Your task to perform on an android device: Open calendar and show me the third week of next month Image 0: 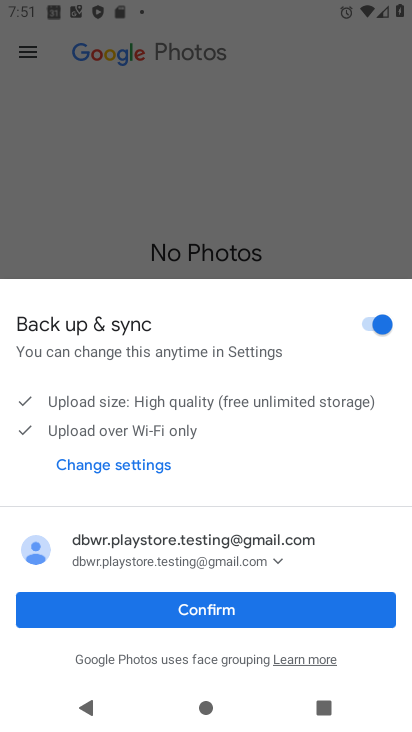
Step 0: press home button
Your task to perform on an android device: Open calendar and show me the third week of next month Image 1: 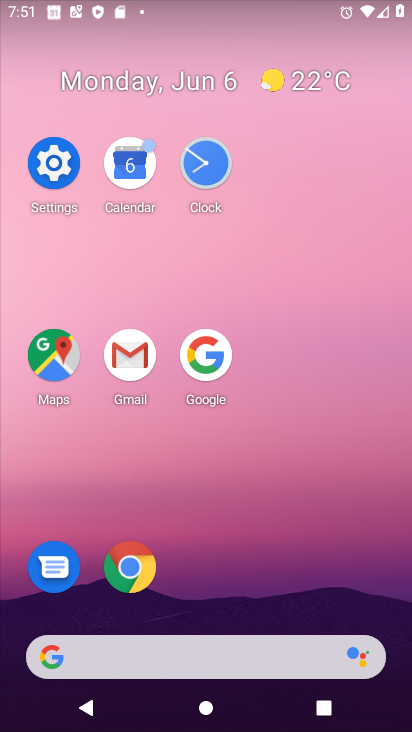
Step 1: click (120, 166)
Your task to perform on an android device: Open calendar and show me the third week of next month Image 2: 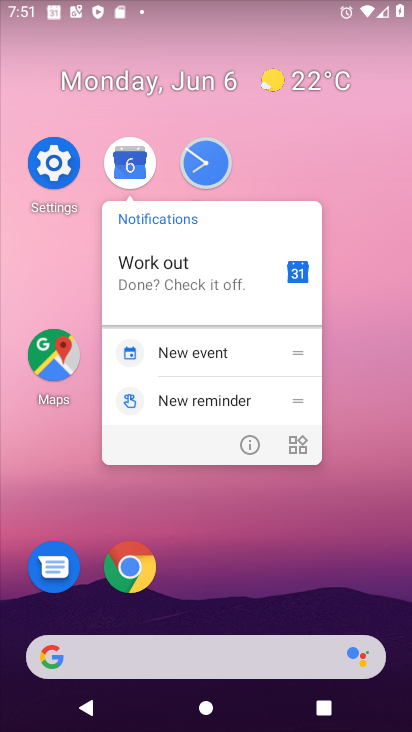
Step 2: click (120, 166)
Your task to perform on an android device: Open calendar and show me the third week of next month Image 3: 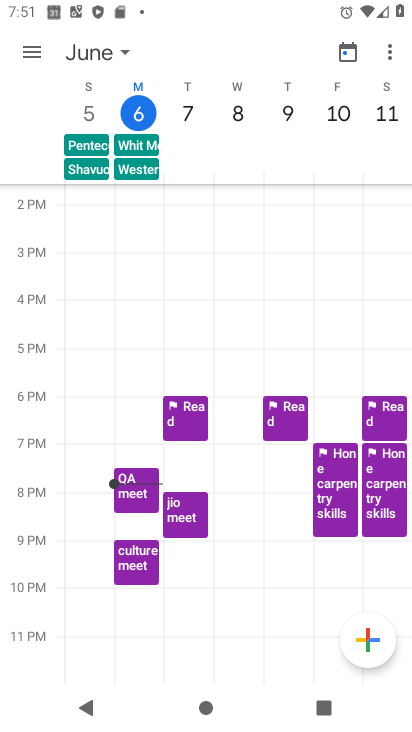
Step 3: click (109, 34)
Your task to perform on an android device: Open calendar and show me the third week of next month Image 4: 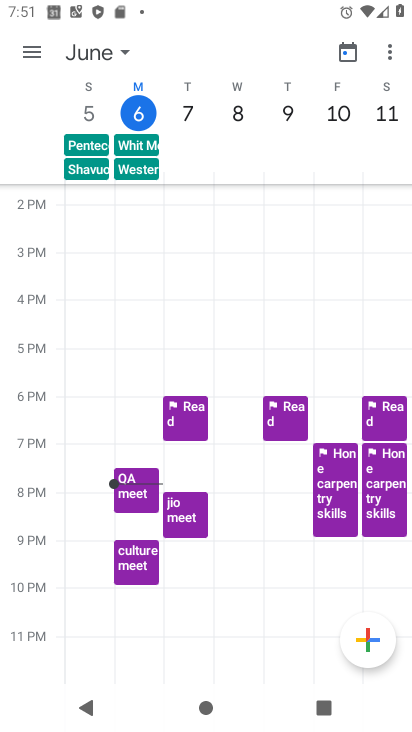
Step 4: click (112, 46)
Your task to perform on an android device: Open calendar and show me the third week of next month Image 5: 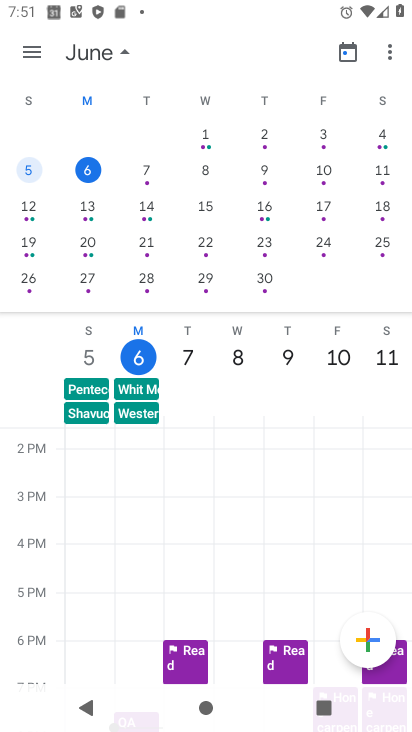
Step 5: drag from (355, 215) to (1, 181)
Your task to perform on an android device: Open calendar and show me the third week of next month Image 6: 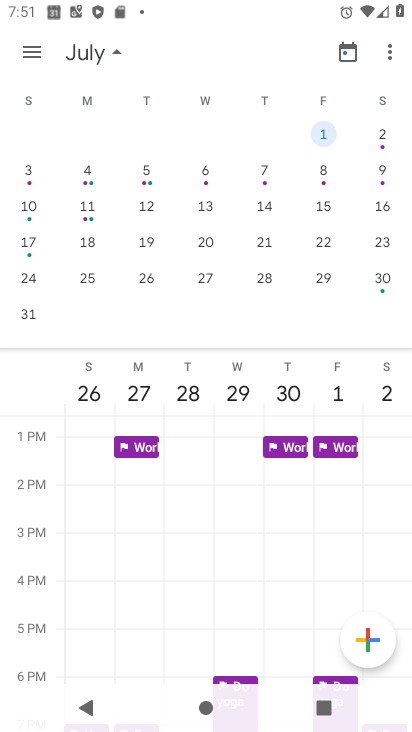
Step 6: click (28, 47)
Your task to perform on an android device: Open calendar and show me the third week of next month Image 7: 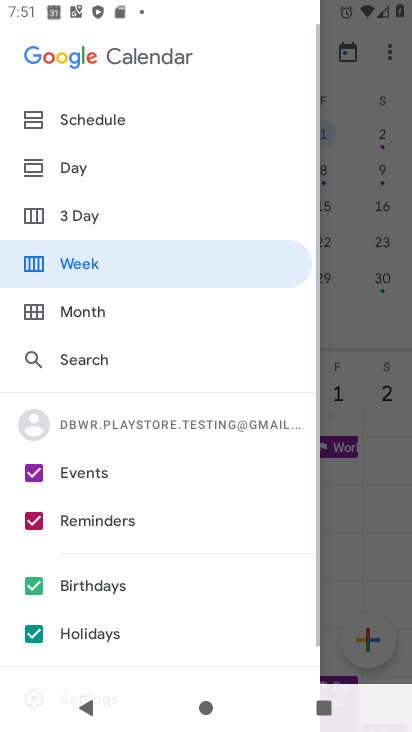
Step 7: click (100, 271)
Your task to perform on an android device: Open calendar and show me the third week of next month Image 8: 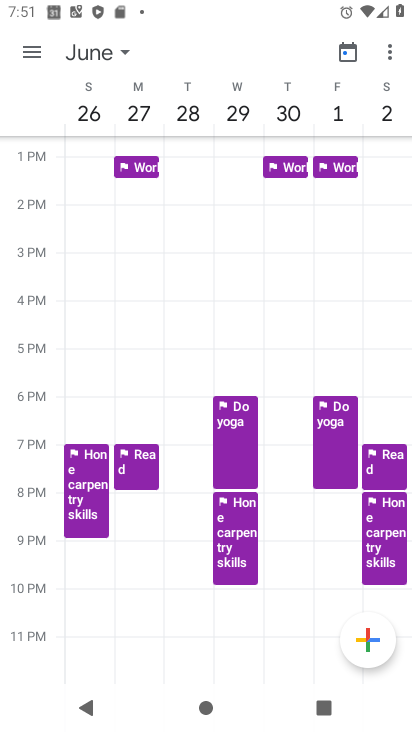
Step 8: task complete